Your task to perform on an android device: Empty the shopping cart on newegg.com. Add usb-c to usb-b to the cart on newegg.com, then select checkout. Image 0: 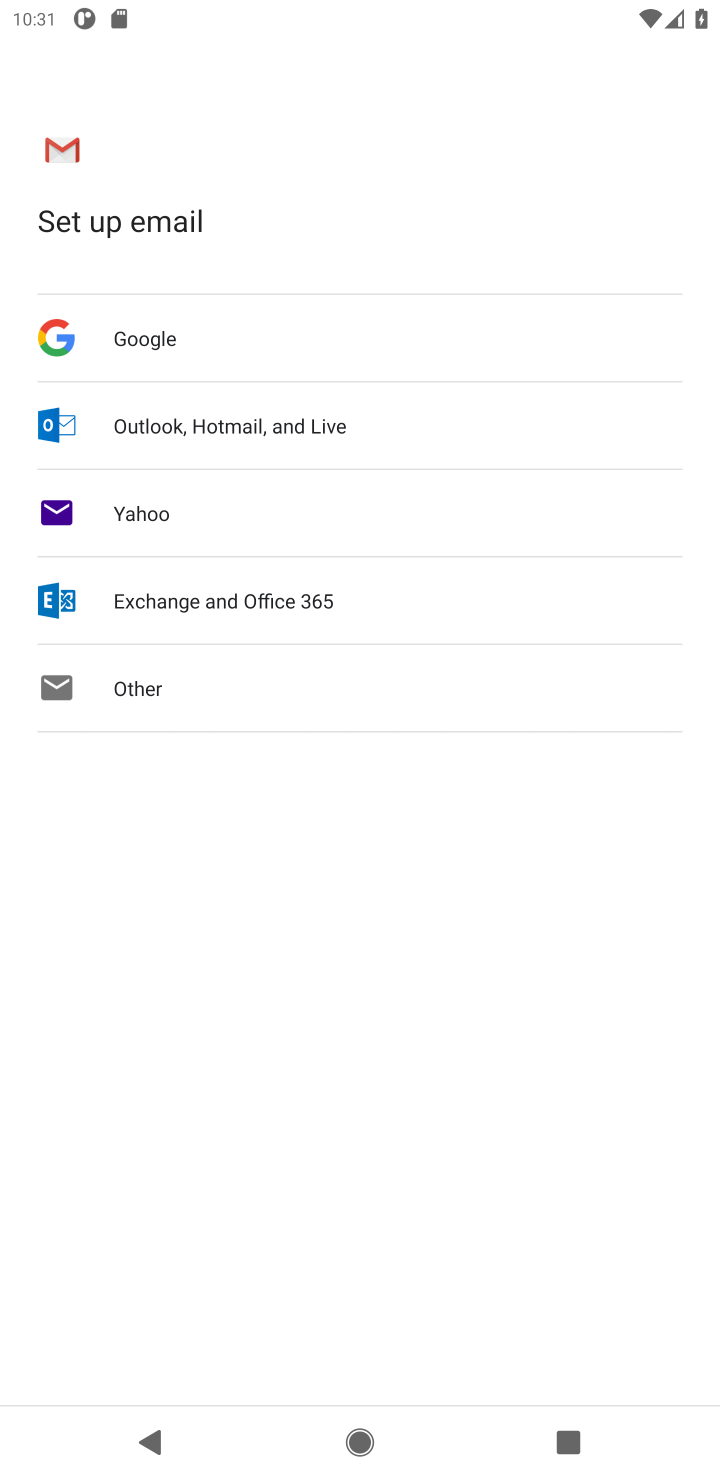
Step 0: press home button
Your task to perform on an android device: Empty the shopping cart on newegg.com. Add usb-c to usb-b to the cart on newegg.com, then select checkout. Image 1: 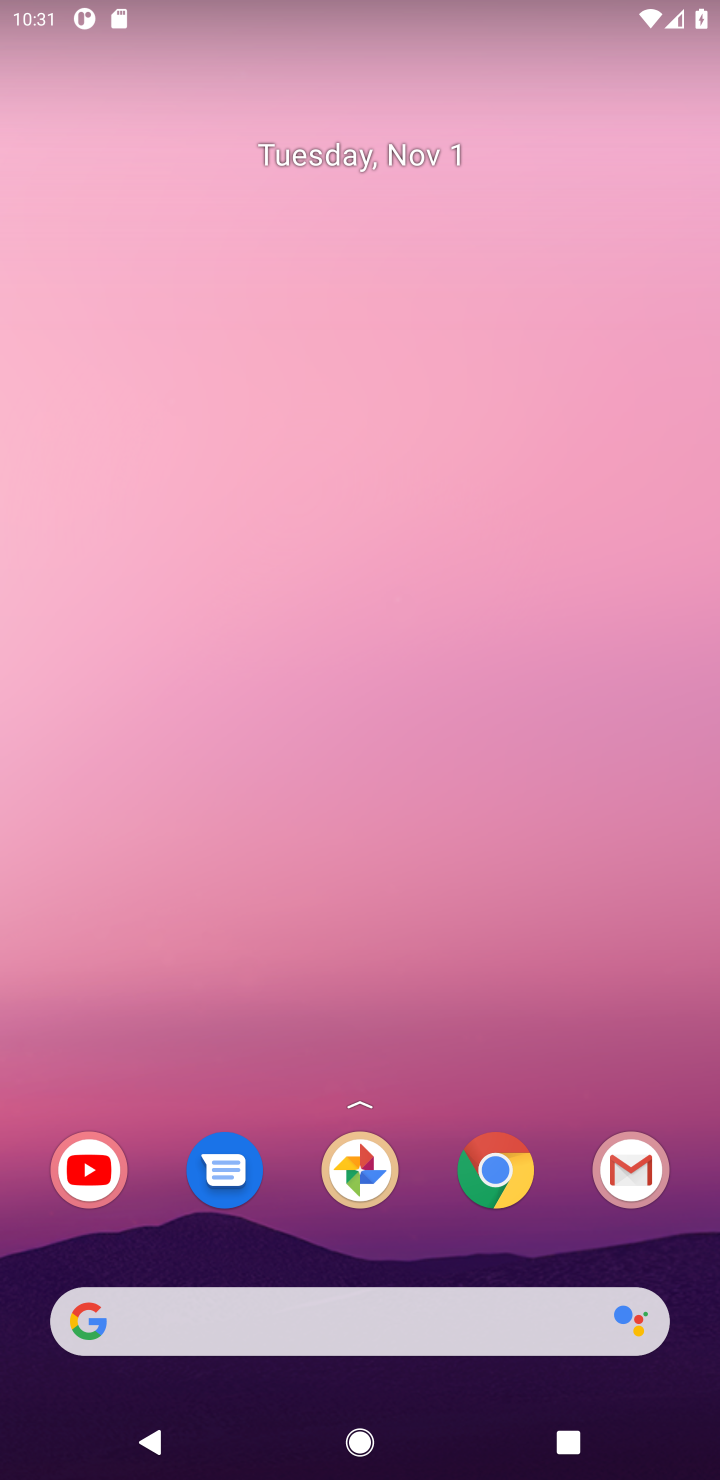
Step 1: click (535, 1183)
Your task to perform on an android device: Empty the shopping cart on newegg.com. Add usb-c to usb-b to the cart on newegg.com, then select checkout. Image 2: 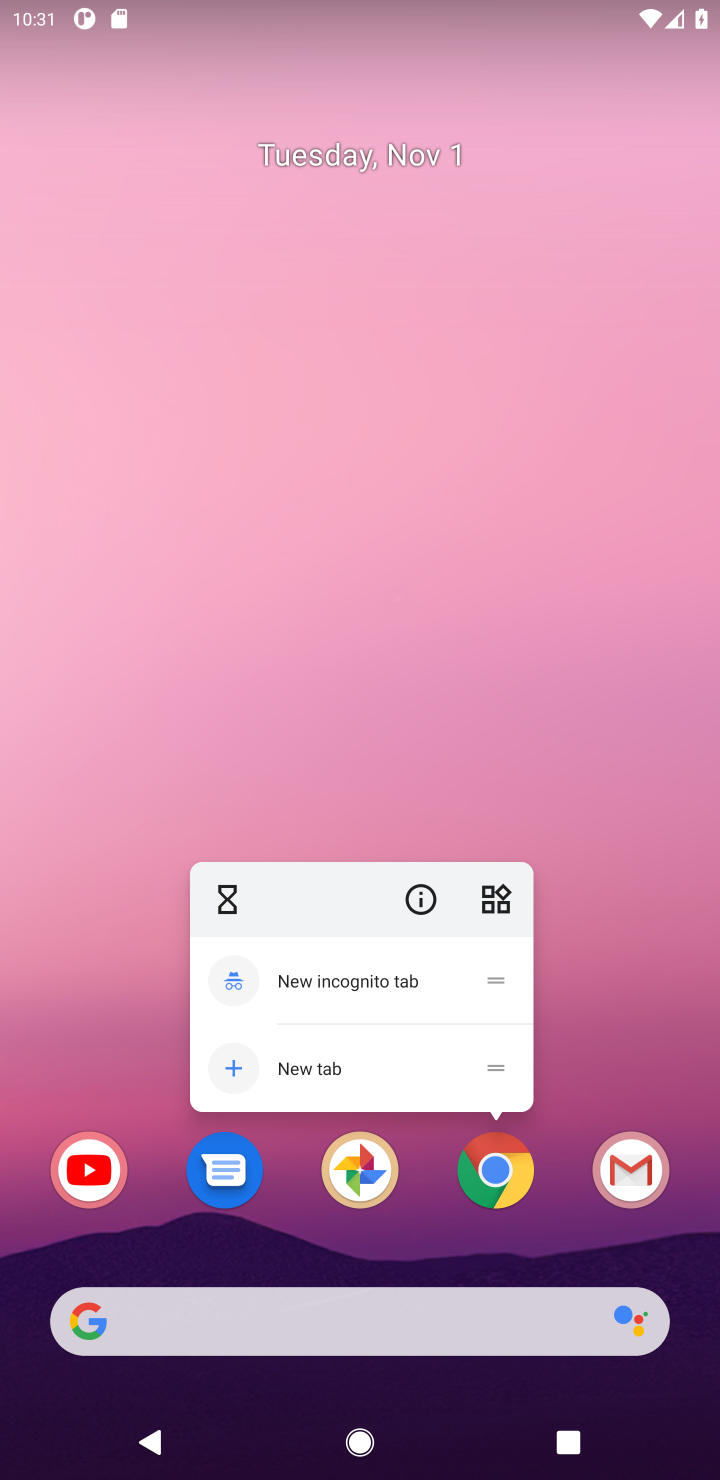
Step 2: click (502, 1197)
Your task to perform on an android device: Empty the shopping cart on newegg.com. Add usb-c to usb-b to the cart on newegg.com, then select checkout. Image 3: 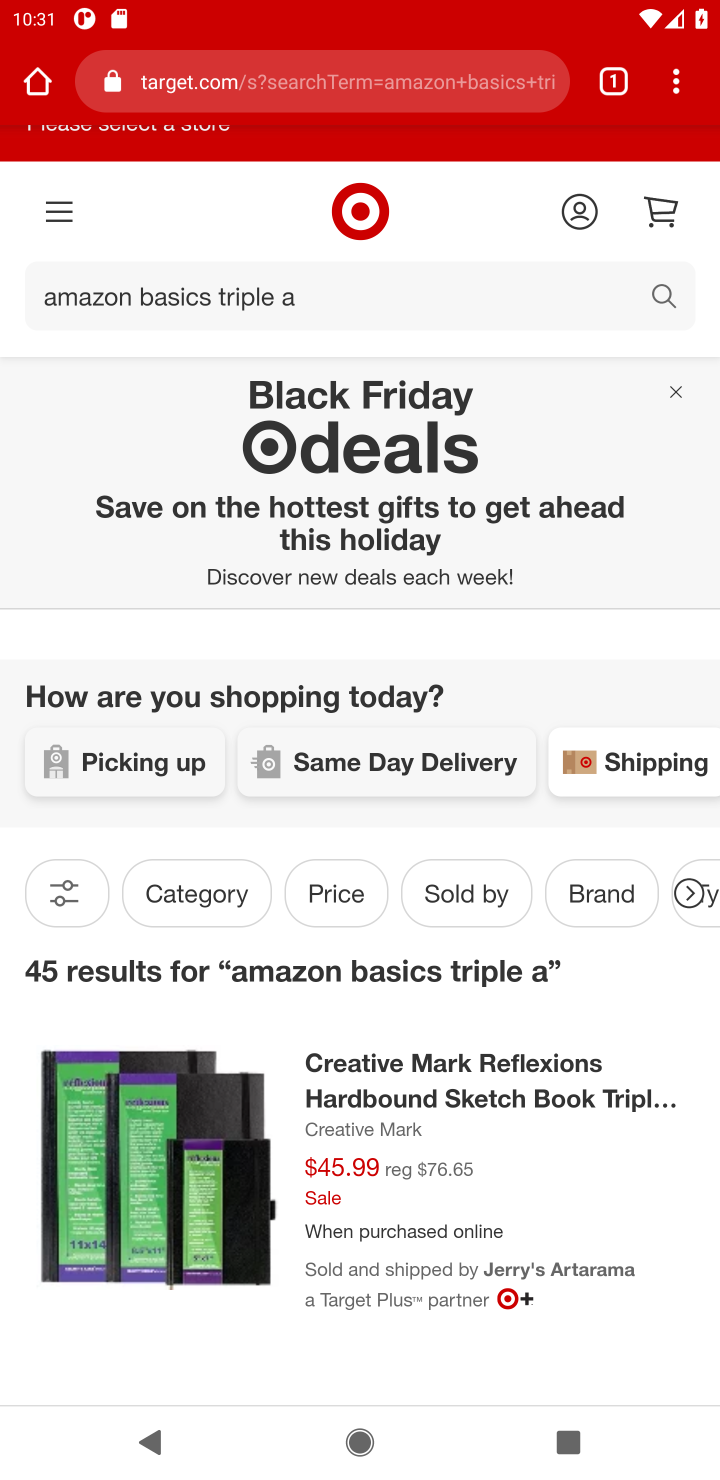
Step 3: click (369, 82)
Your task to perform on an android device: Empty the shopping cart on newegg.com. Add usb-c to usb-b to the cart on newegg.com, then select checkout. Image 4: 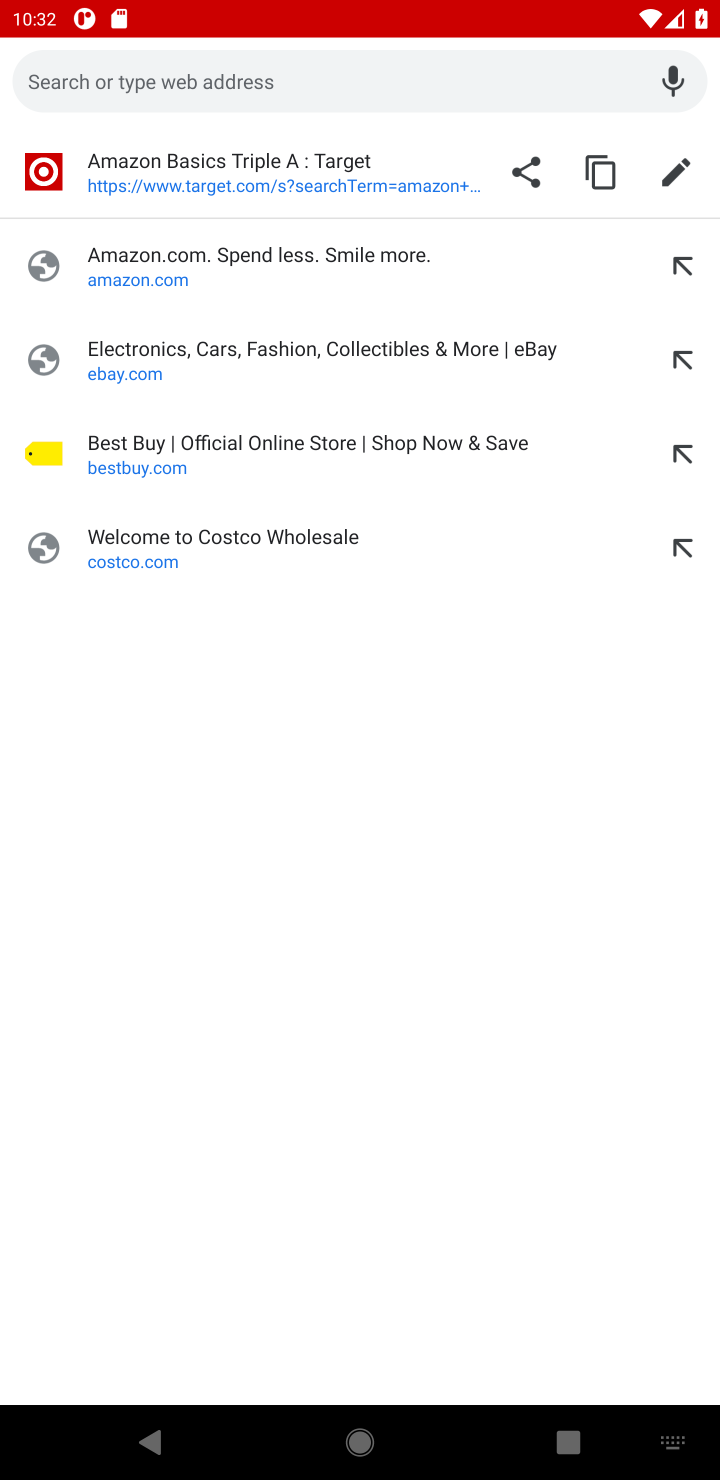
Step 4: type "newegg.com"
Your task to perform on an android device: Empty the shopping cart on newegg.com. Add usb-c to usb-b to the cart on newegg.com, then select checkout. Image 5: 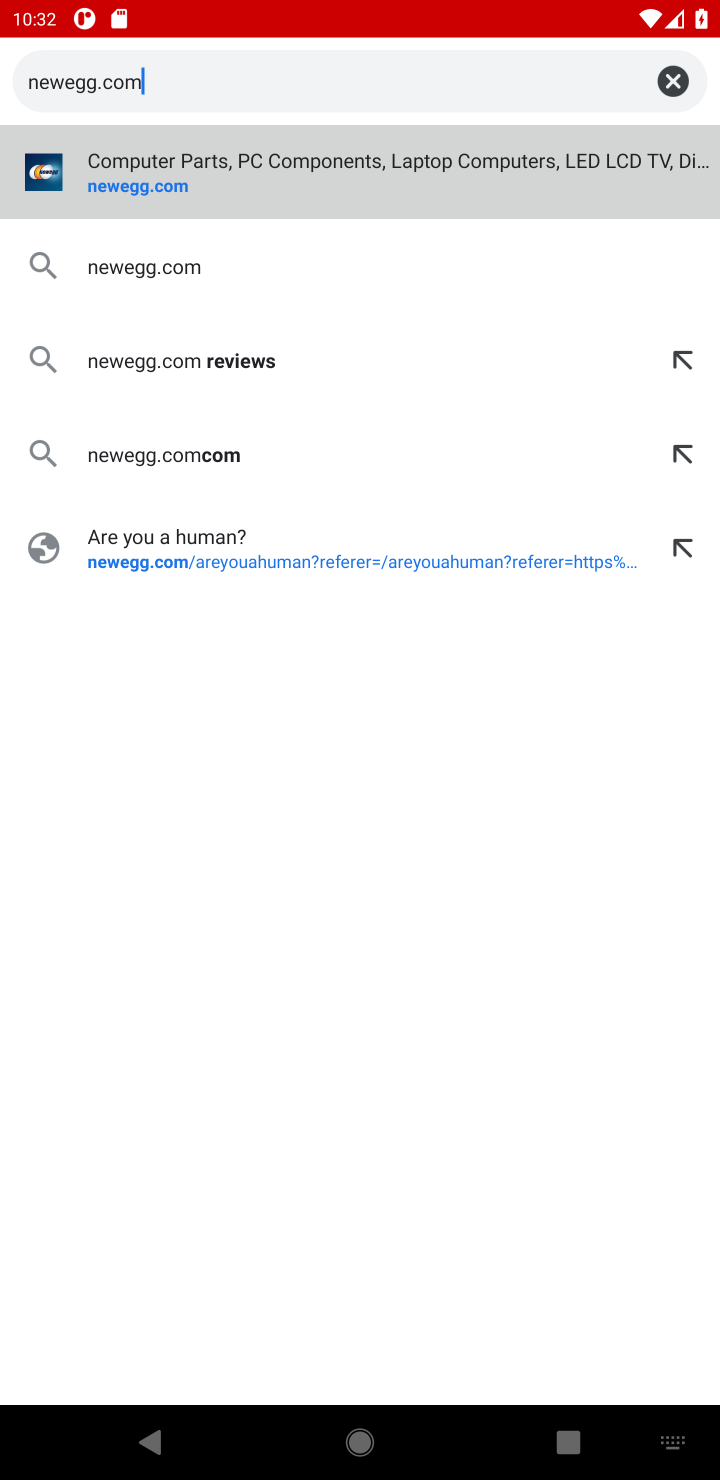
Step 5: press enter
Your task to perform on an android device: Empty the shopping cart on newegg.com. Add usb-c to usb-b to the cart on newegg.com, then select checkout. Image 6: 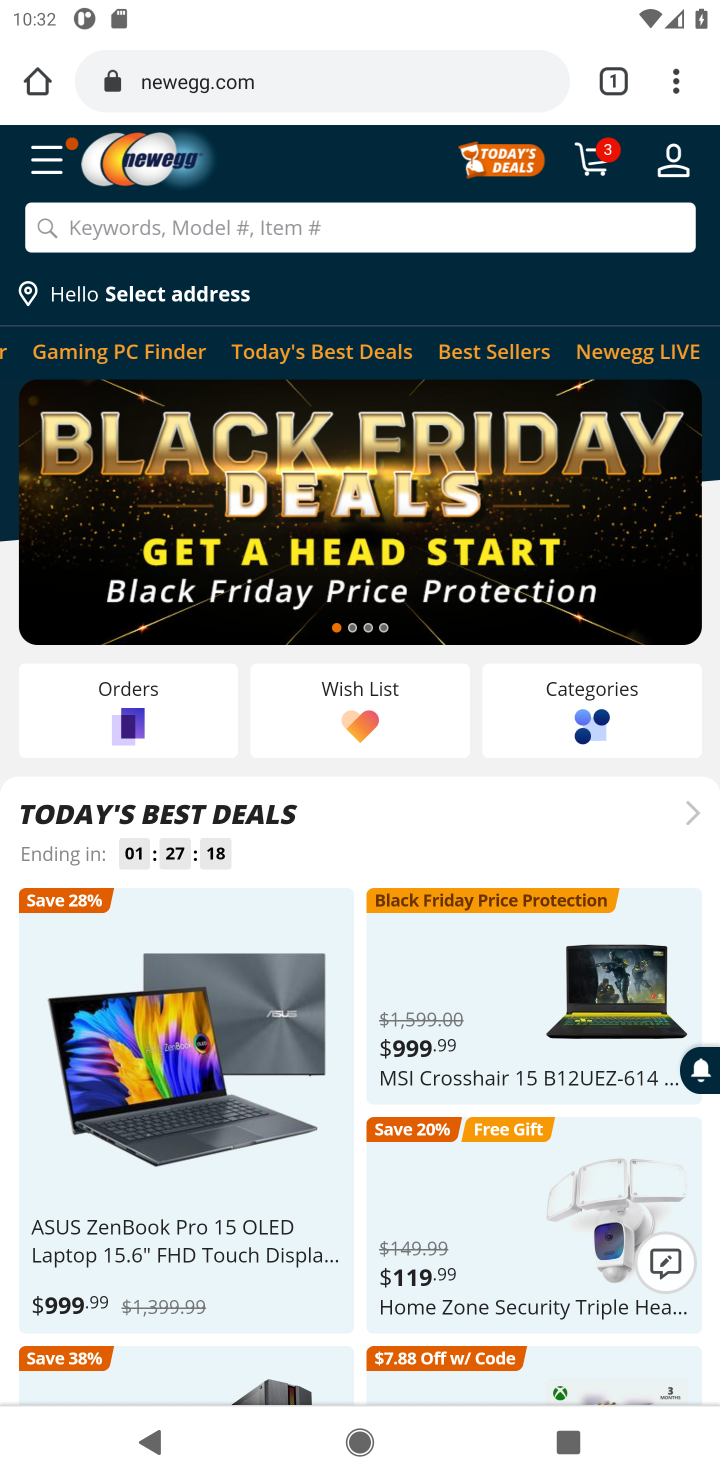
Step 6: click (592, 164)
Your task to perform on an android device: Empty the shopping cart on newegg.com. Add usb-c to usb-b to the cart on newegg.com, then select checkout. Image 7: 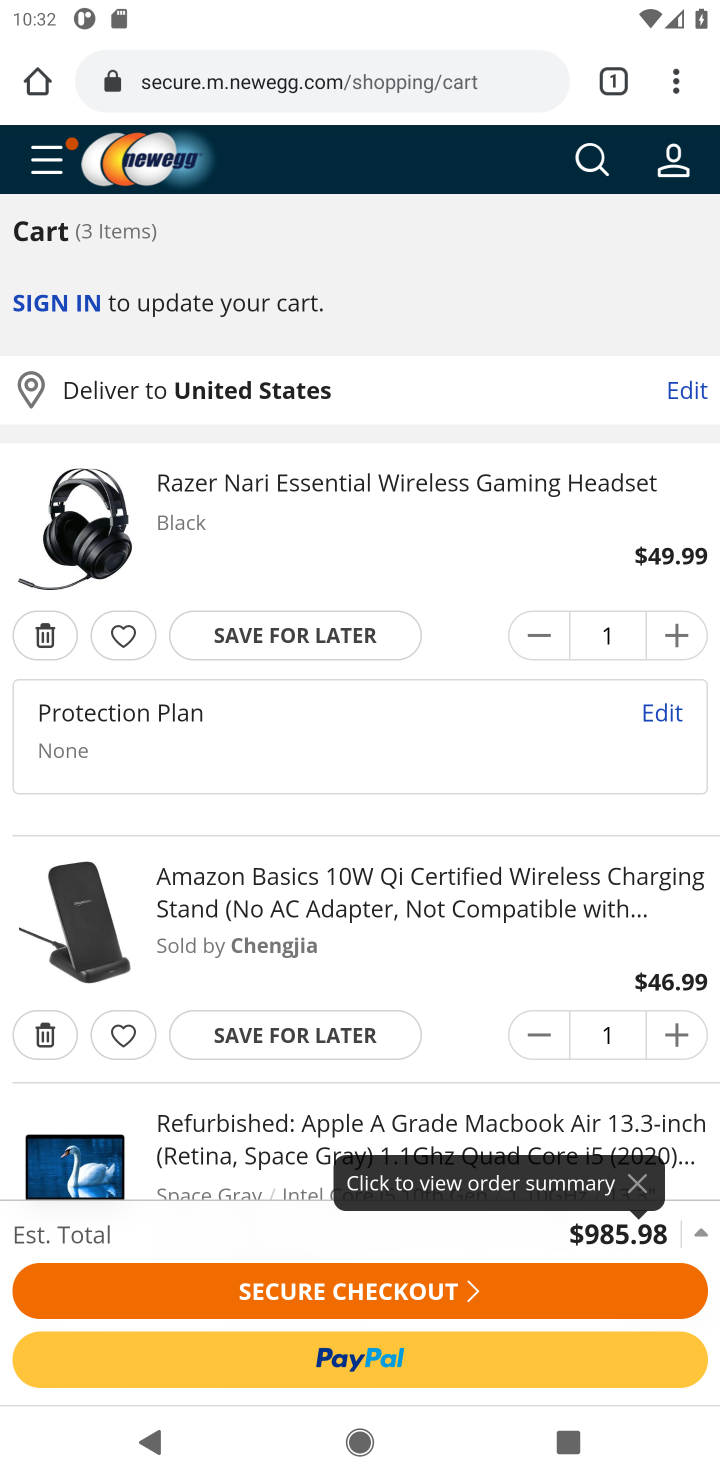
Step 7: click (30, 630)
Your task to perform on an android device: Empty the shopping cart on newegg.com. Add usb-c to usb-b to the cart on newegg.com, then select checkout. Image 8: 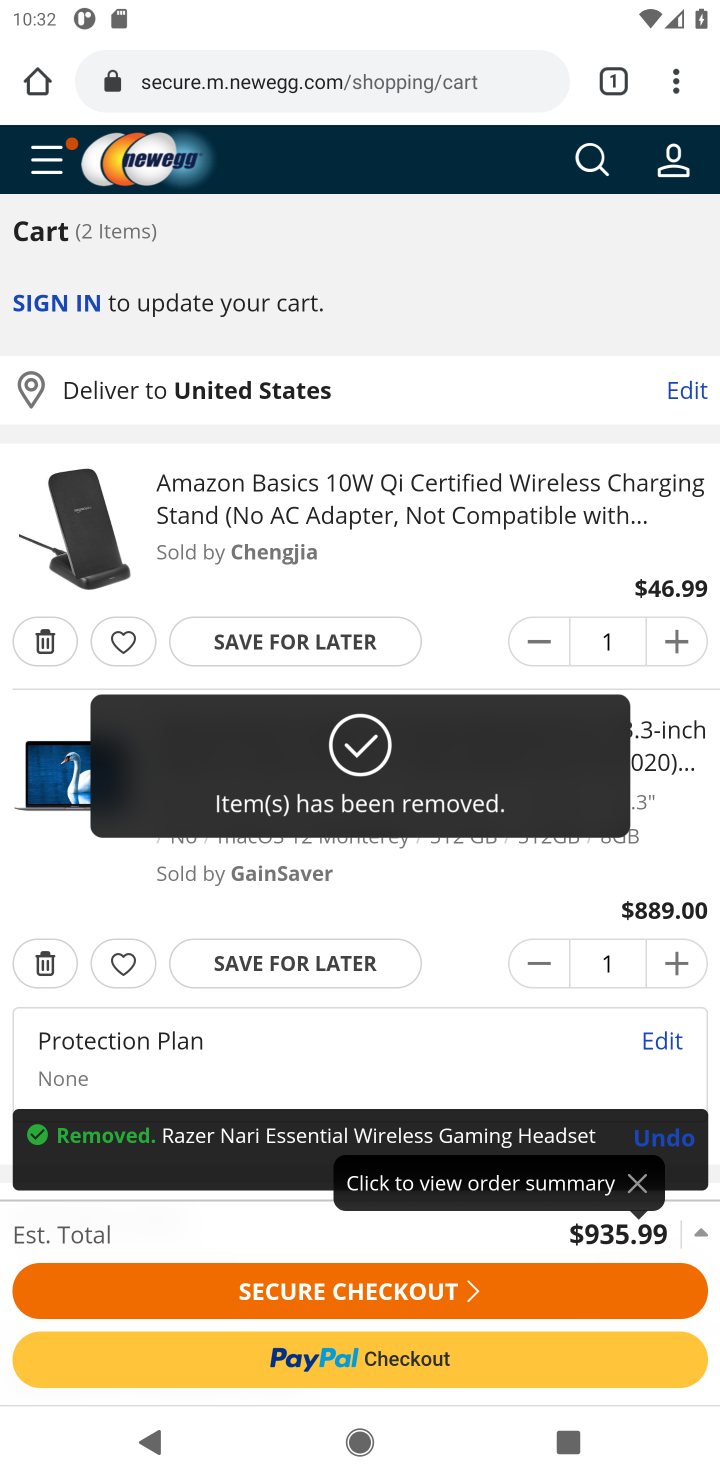
Step 8: click (30, 630)
Your task to perform on an android device: Empty the shopping cart on newegg.com. Add usb-c to usb-b to the cart on newegg.com, then select checkout. Image 9: 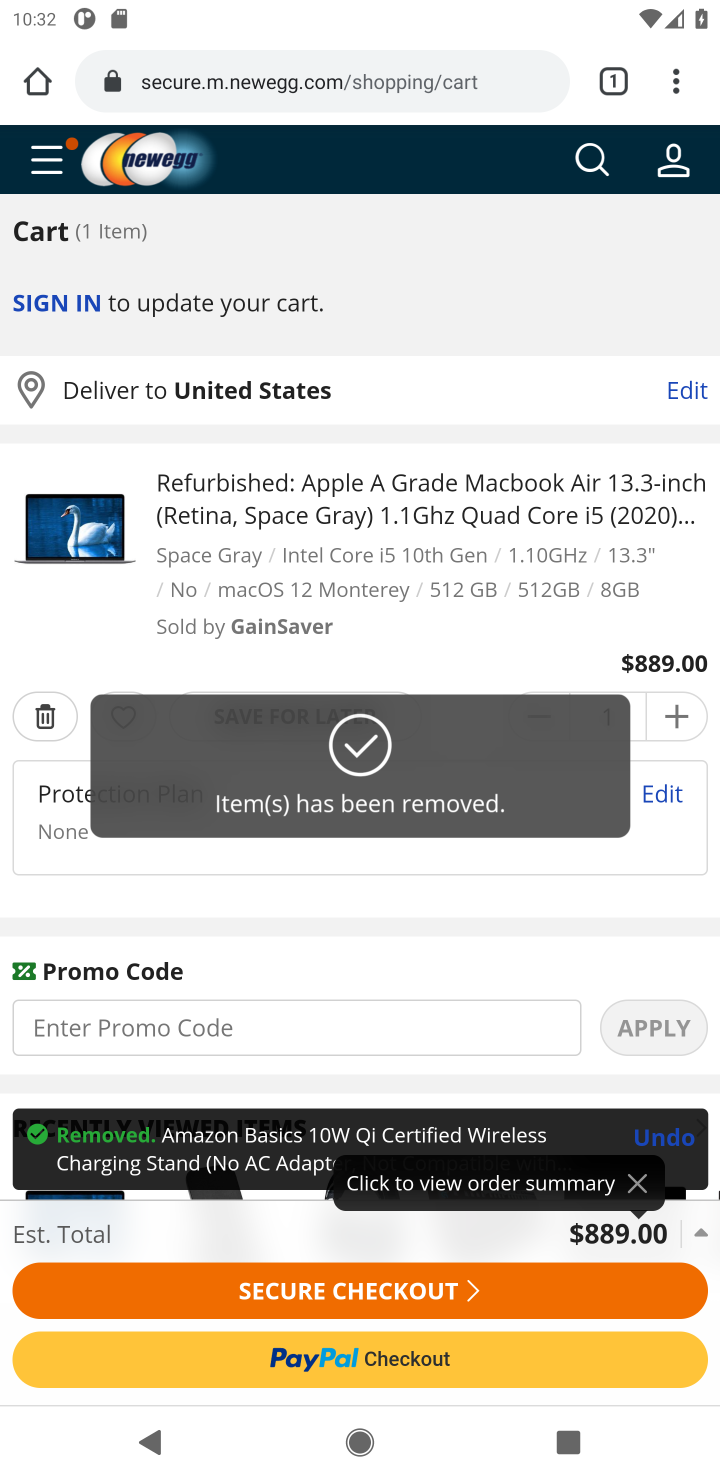
Step 9: click (47, 721)
Your task to perform on an android device: Empty the shopping cart on newegg.com. Add usb-c to usb-b to the cart on newegg.com, then select checkout. Image 10: 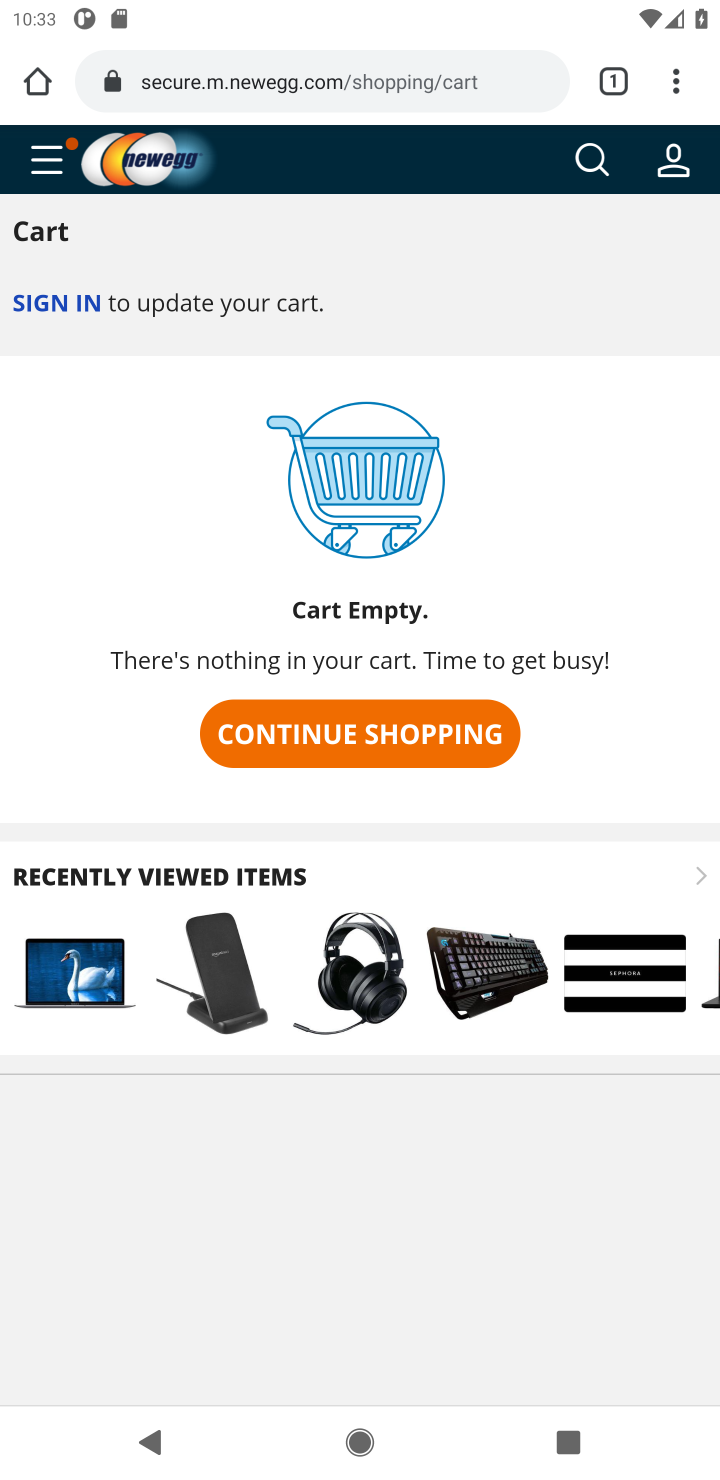
Step 10: click (353, 731)
Your task to perform on an android device: Empty the shopping cart on newegg.com. Add usb-c to usb-b to the cart on newegg.com, then select checkout. Image 11: 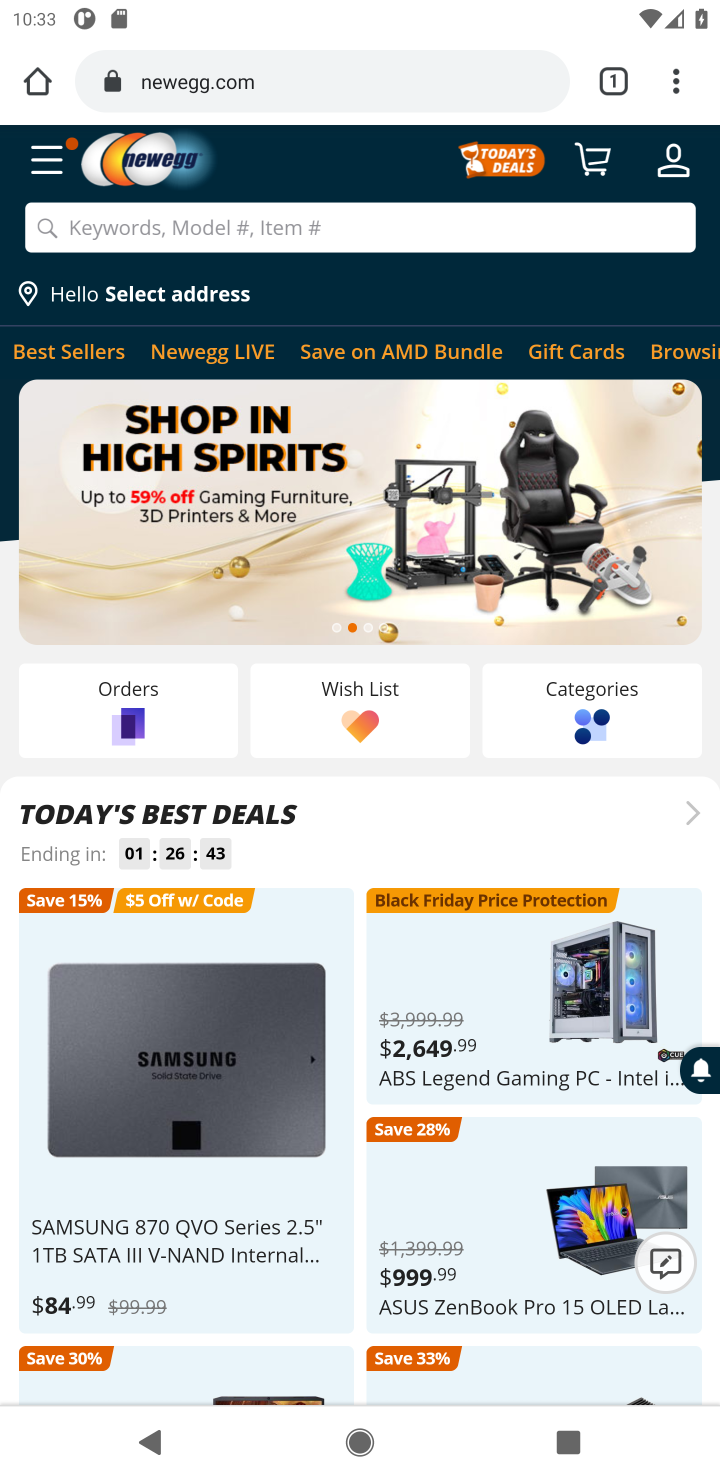
Step 11: click (471, 199)
Your task to perform on an android device: Empty the shopping cart on newegg.com. Add usb-c to usb-b to the cart on newegg.com, then select checkout. Image 12: 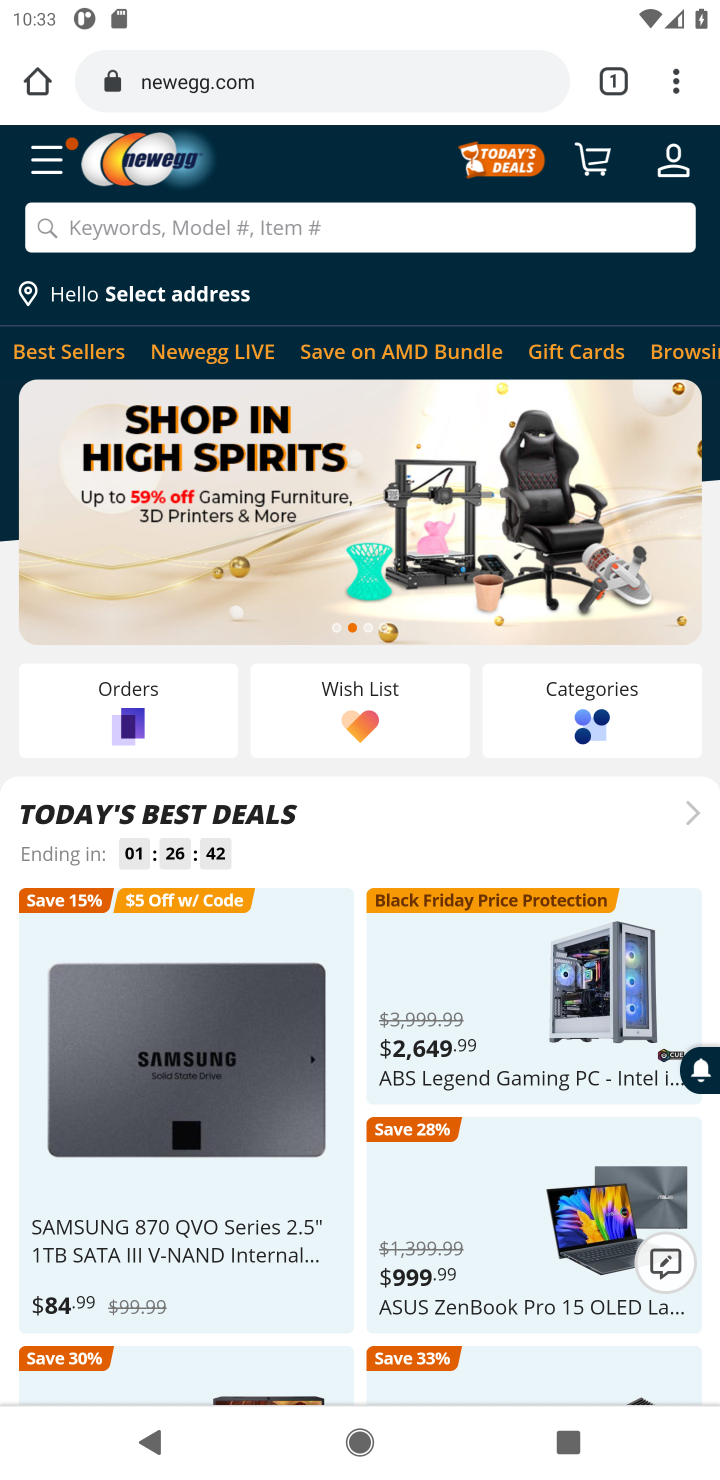
Step 12: click (462, 232)
Your task to perform on an android device: Empty the shopping cart on newegg.com. Add usb-c to usb-b to the cart on newegg.com, then select checkout. Image 13: 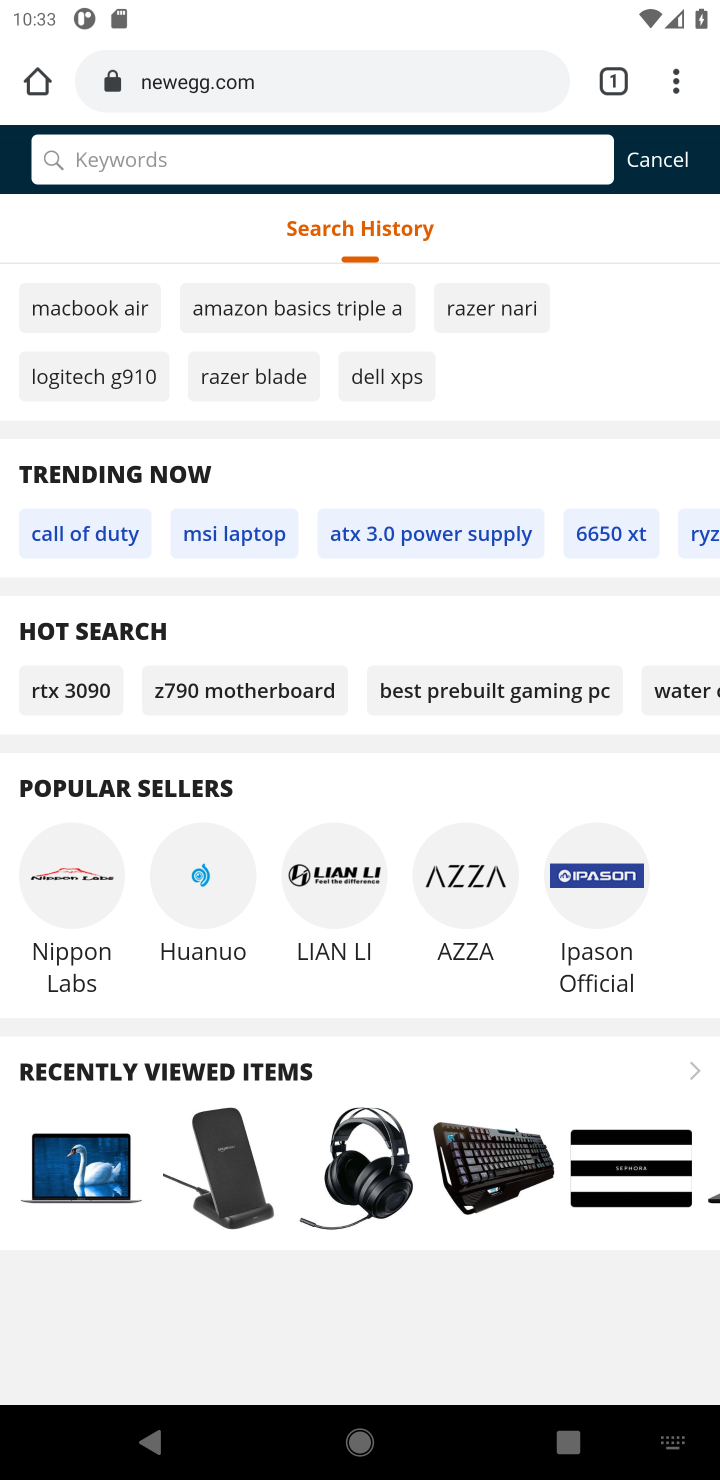
Step 13: type "usb-c to usb-b"
Your task to perform on an android device: Empty the shopping cart on newegg.com. Add usb-c to usb-b to the cart on newegg.com, then select checkout. Image 14: 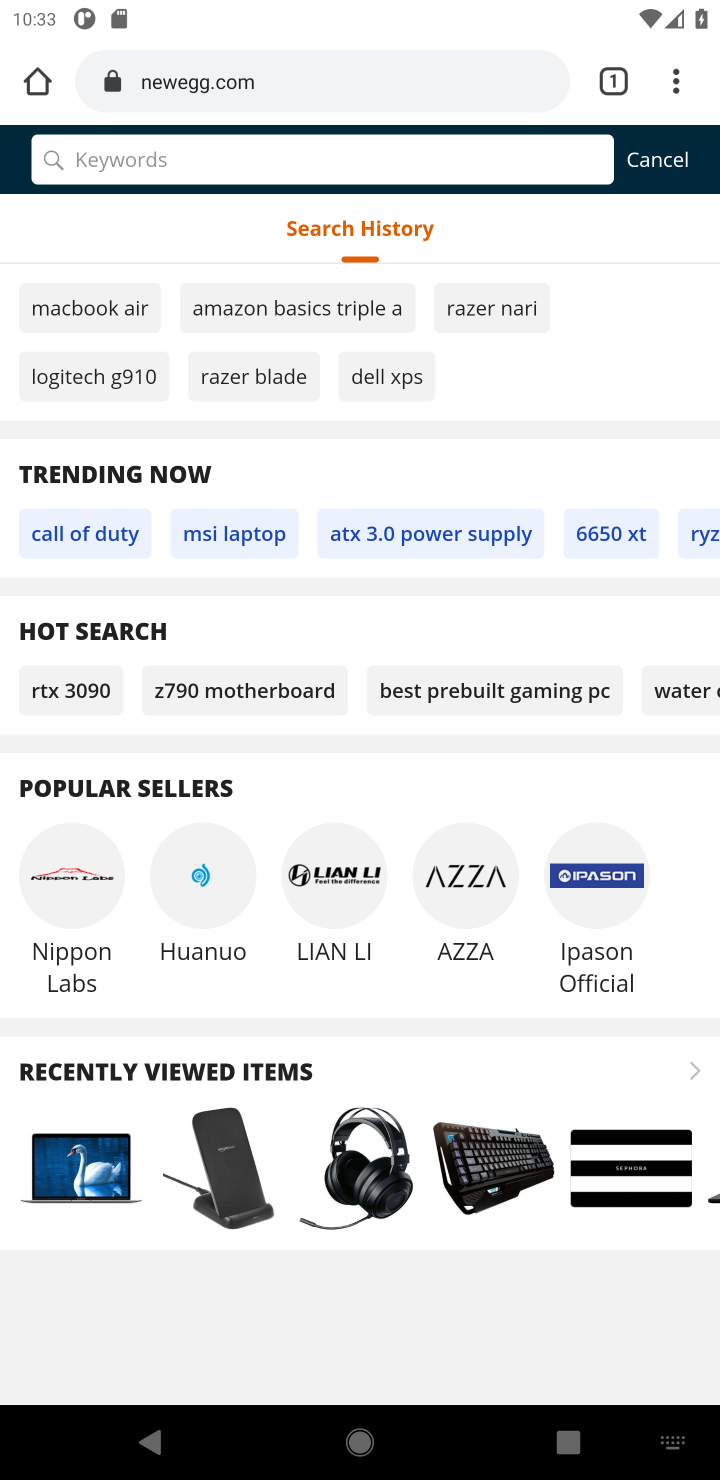
Step 14: type ""
Your task to perform on an android device: Empty the shopping cart on newegg.com. Add usb-c to usb-b to the cart on newegg.com, then select checkout. Image 15: 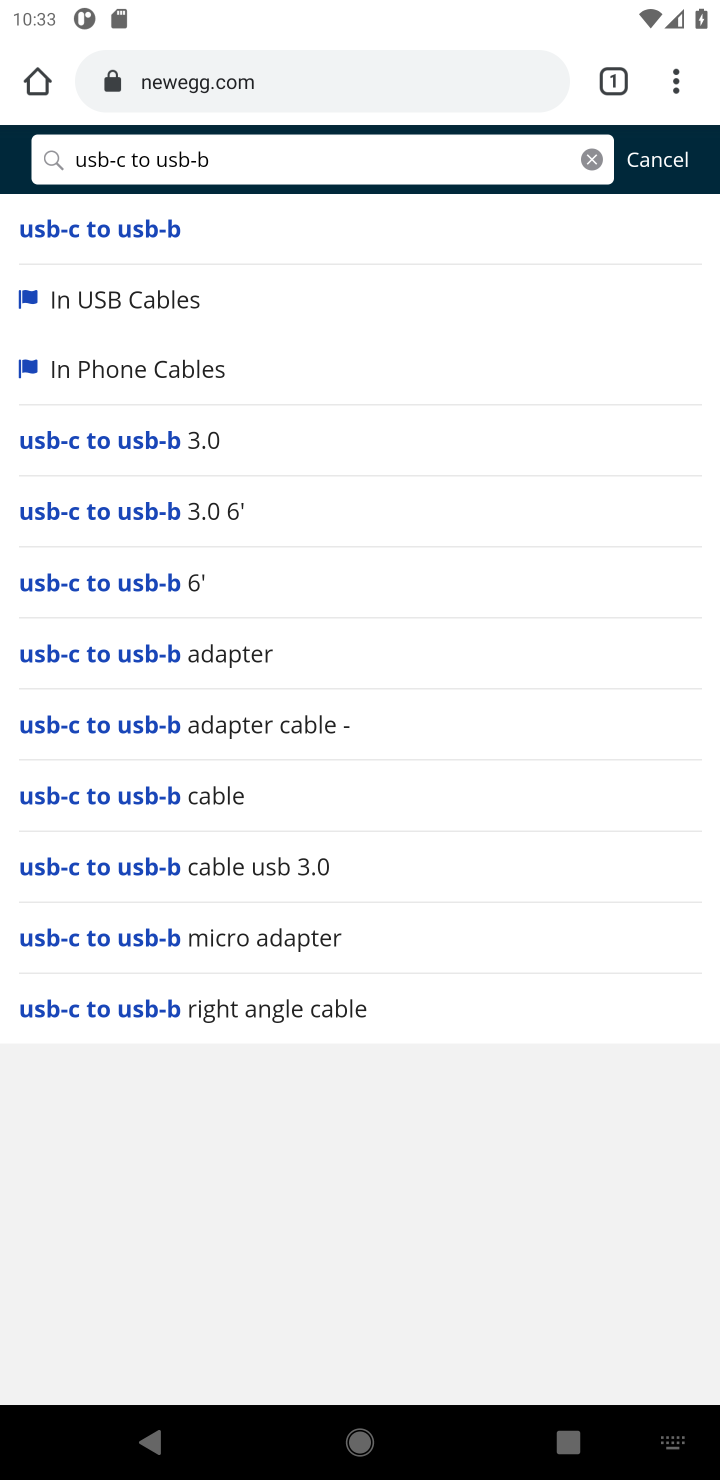
Step 15: press enter
Your task to perform on an android device: Empty the shopping cart on newegg.com. Add usb-c to usb-b to the cart on newegg.com, then select checkout. Image 16: 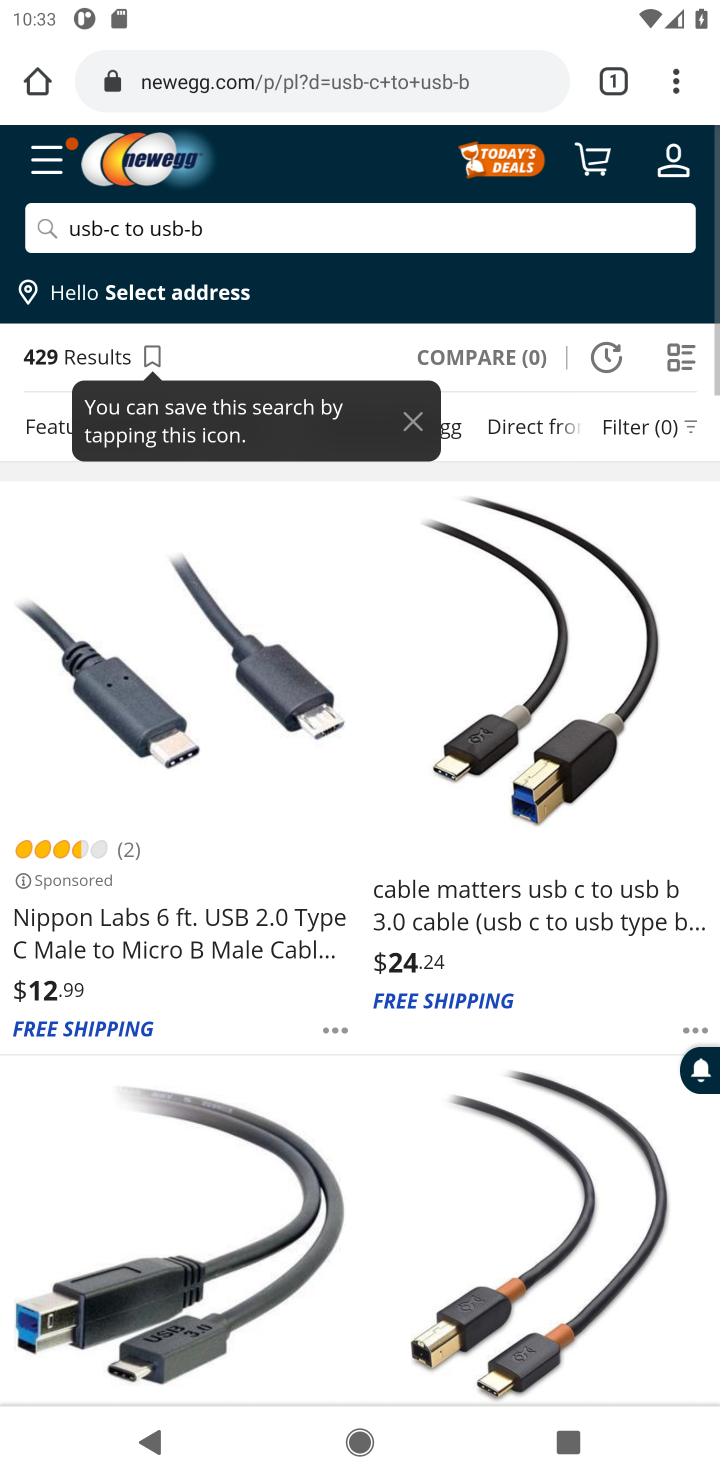
Step 16: click (466, 723)
Your task to perform on an android device: Empty the shopping cart on newegg.com. Add usb-c to usb-b to the cart on newegg.com, then select checkout. Image 17: 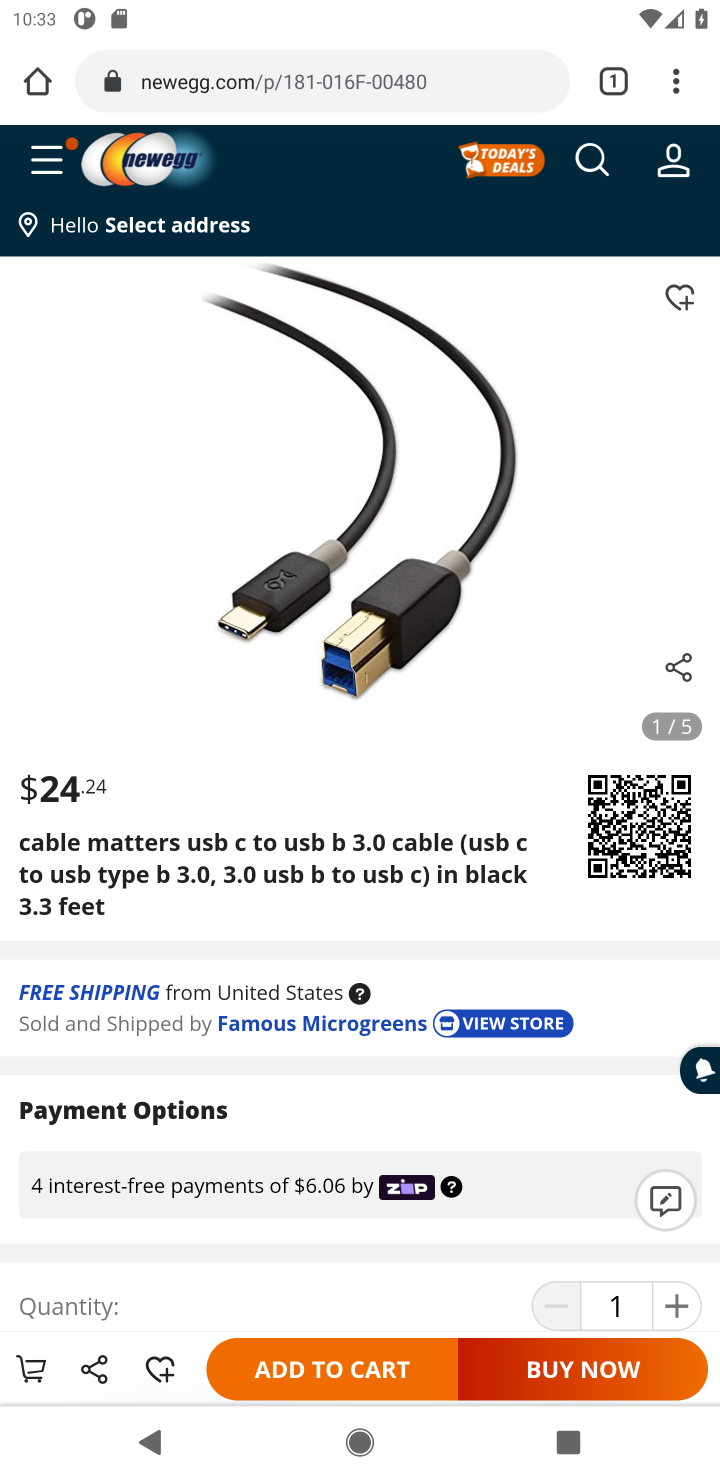
Step 17: click (297, 1358)
Your task to perform on an android device: Empty the shopping cart on newegg.com. Add usb-c to usb-b to the cart on newegg.com, then select checkout. Image 18: 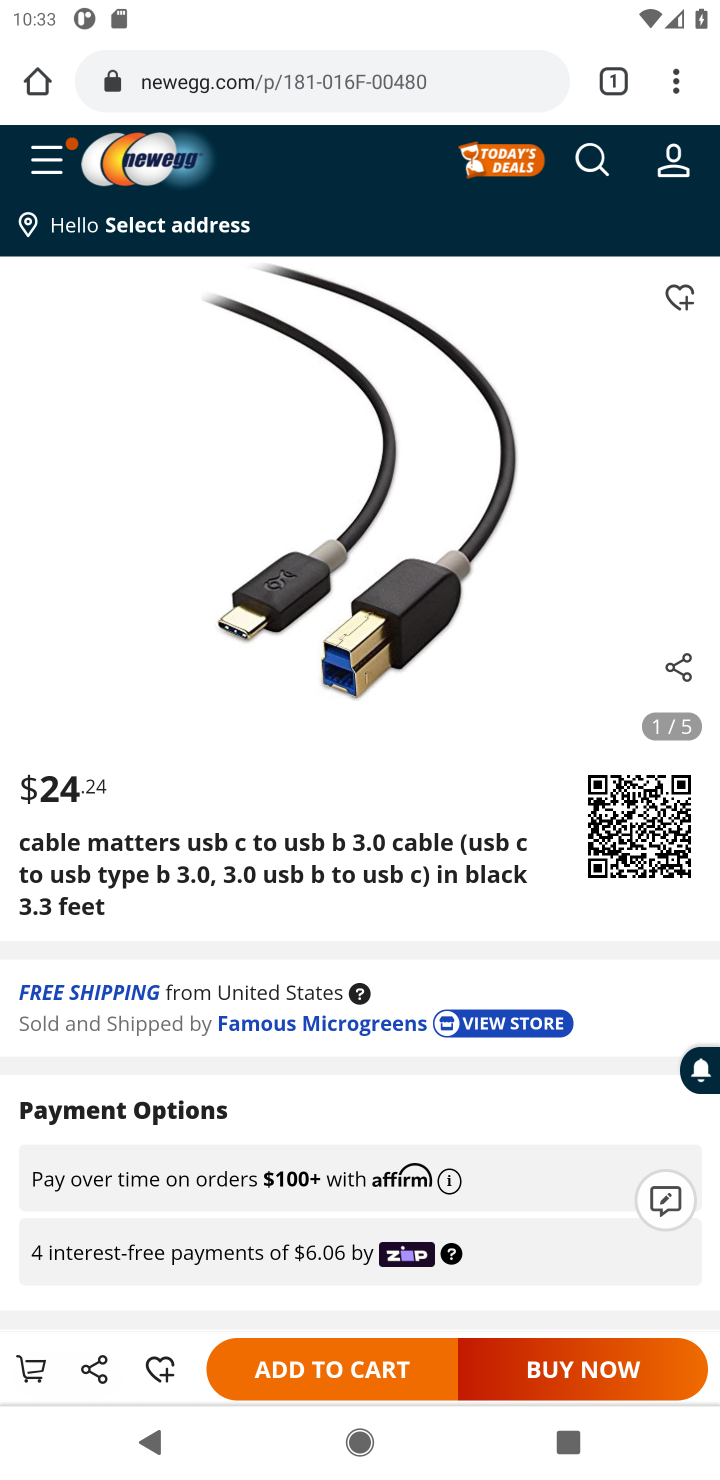
Step 18: click (367, 1382)
Your task to perform on an android device: Empty the shopping cart on newegg.com. Add usb-c to usb-b to the cart on newegg.com, then select checkout. Image 19: 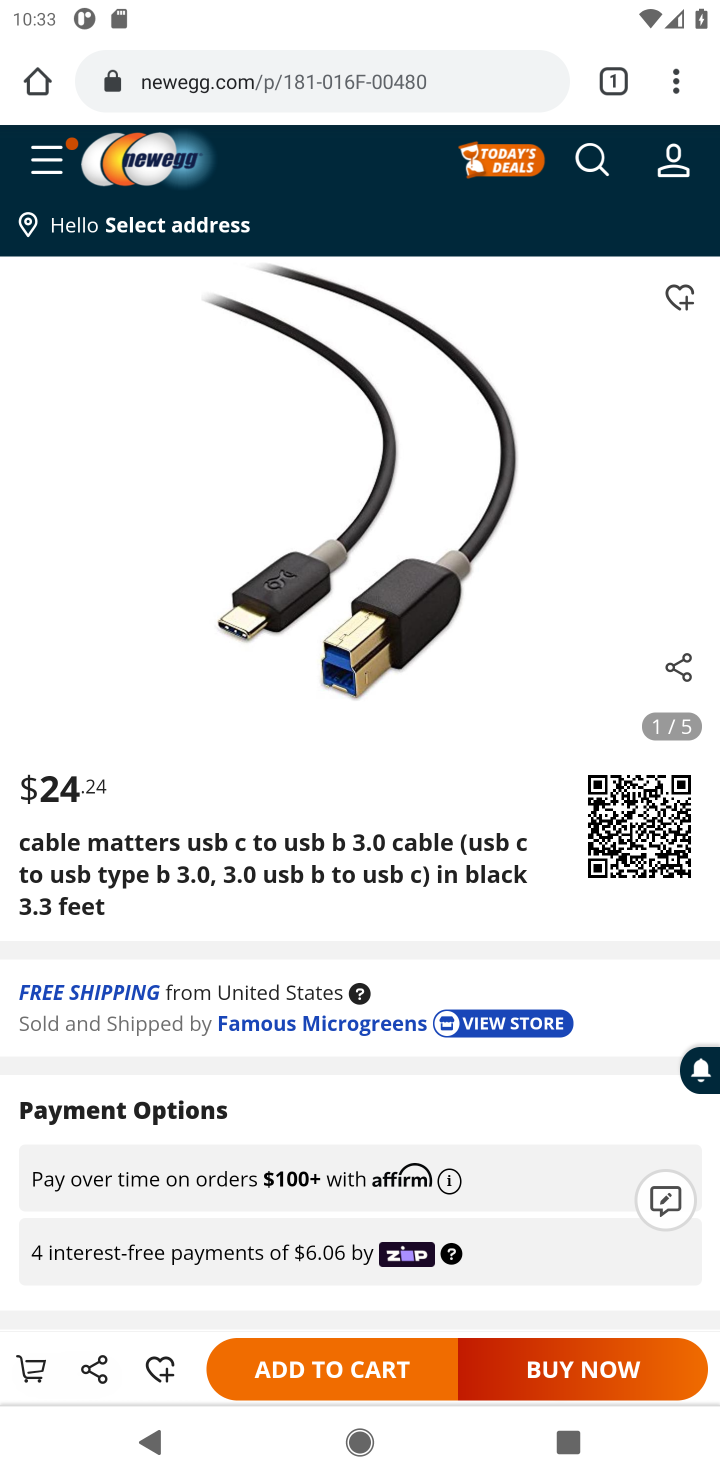
Step 19: click (320, 1367)
Your task to perform on an android device: Empty the shopping cart on newegg.com. Add usb-c to usb-b to the cart on newegg.com, then select checkout. Image 20: 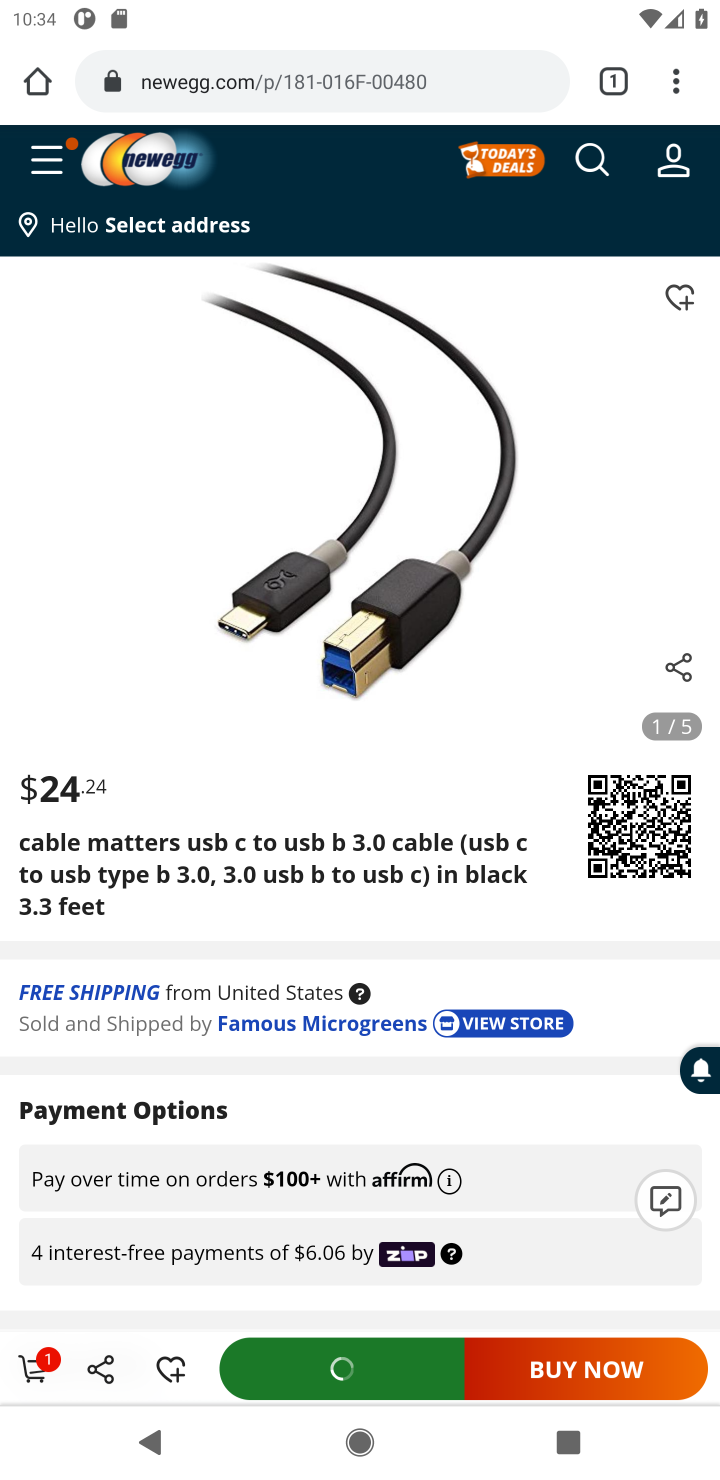
Step 20: click (29, 1379)
Your task to perform on an android device: Empty the shopping cart on newegg.com. Add usb-c to usb-b to the cart on newegg.com, then select checkout. Image 21: 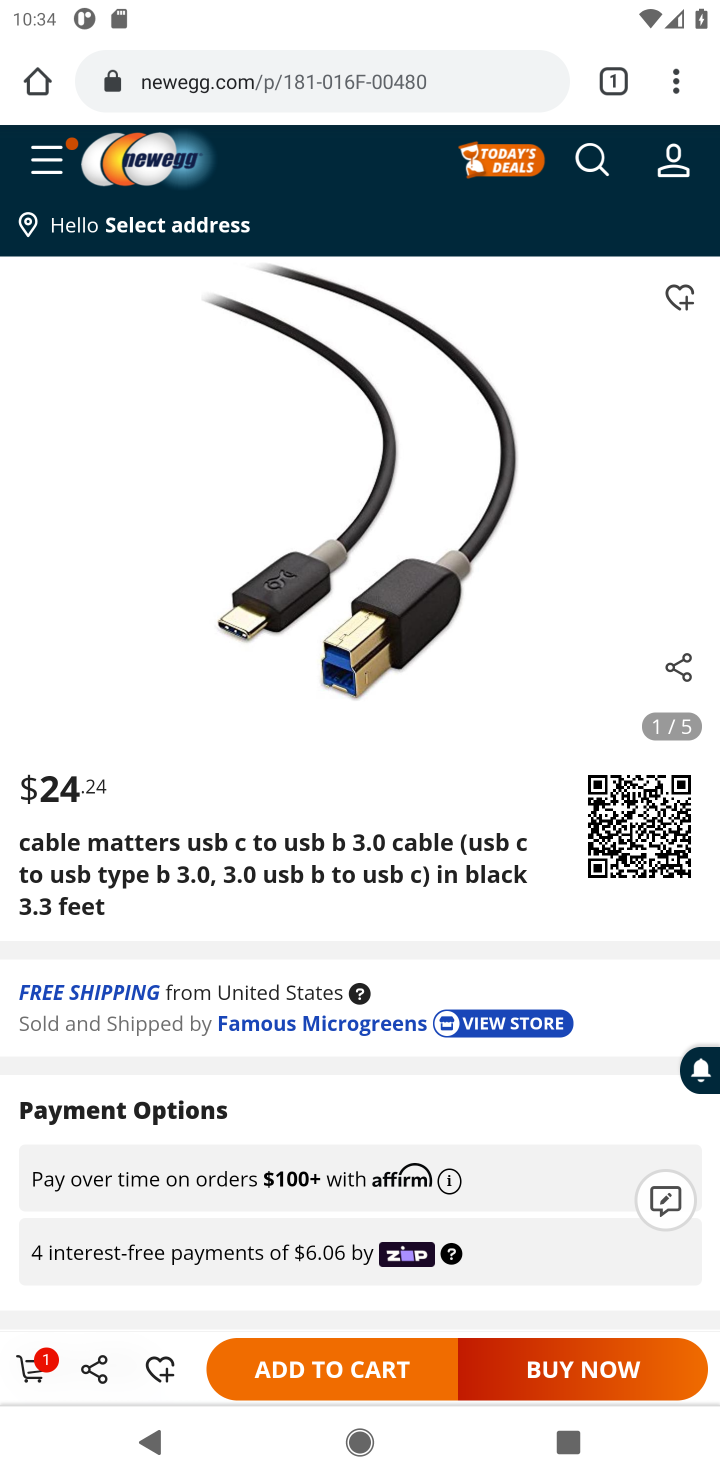
Step 21: click (29, 1378)
Your task to perform on an android device: Empty the shopping cart on newegg.com. Add usb-c to usb-b to the cart on newegg.com, then select checkout. Image 22: 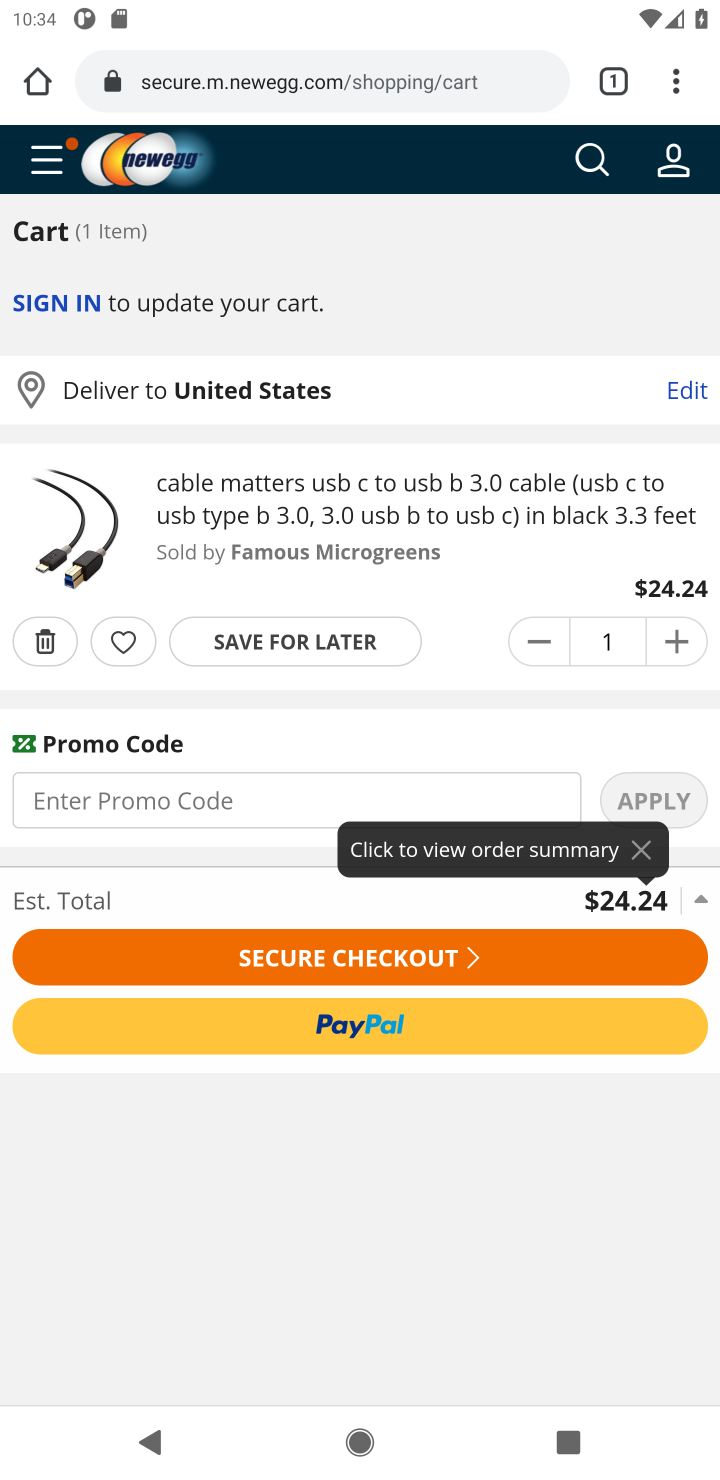
Step 22: click (349, 949)
Your task to perform on an android device: Empty the shopping cart on newegg.com. Add usb-c to usb-b to the cart on newegg.com, then select checkout. Image 23: 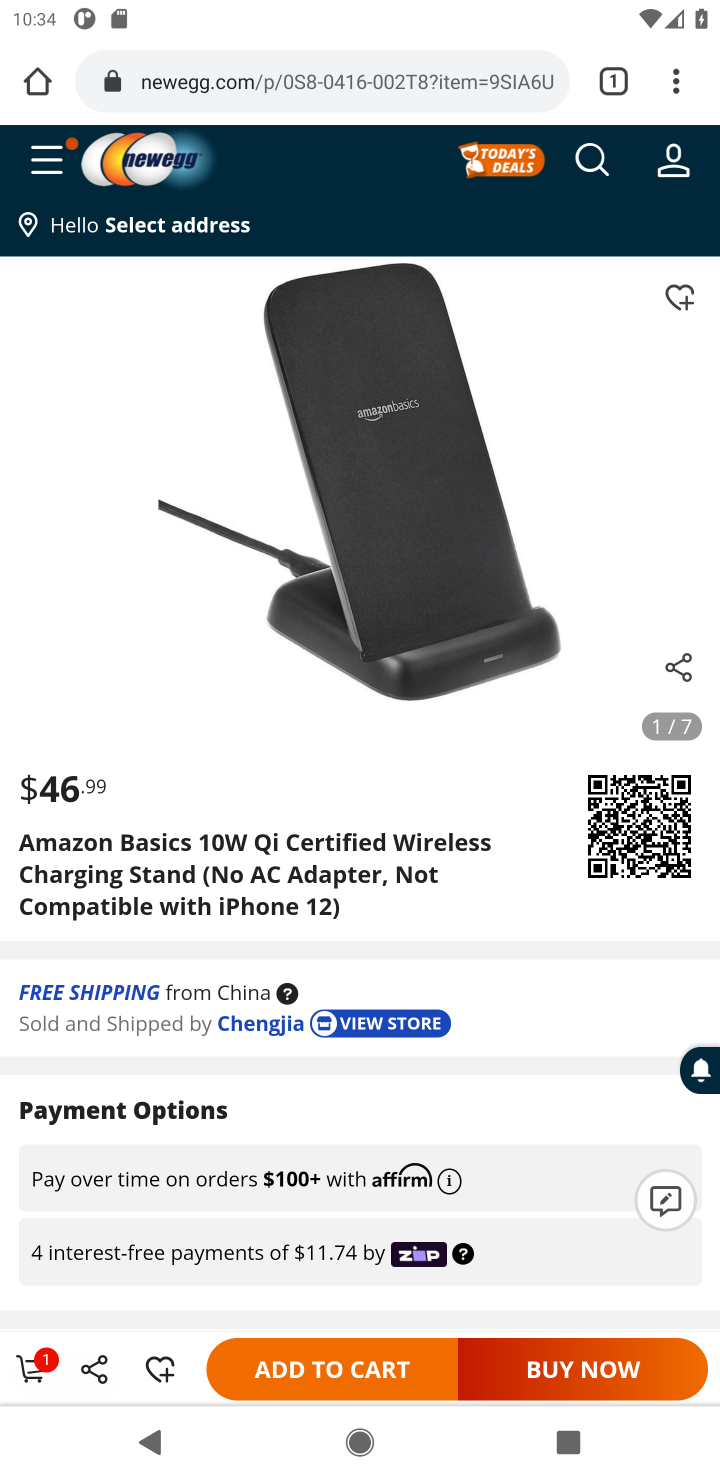
Step 23: task complete